Your task to perform on an android device: toggle javascript in the chrome app Image 0: 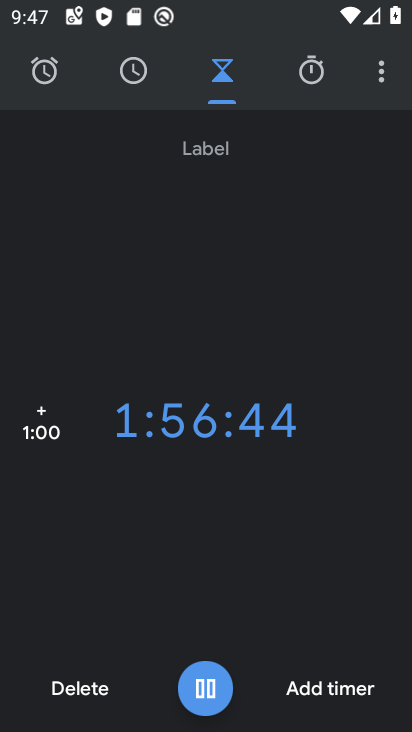
Step 0: press home button
Your task to perform on an android device: toggle javascript in the chrome app Image 1: 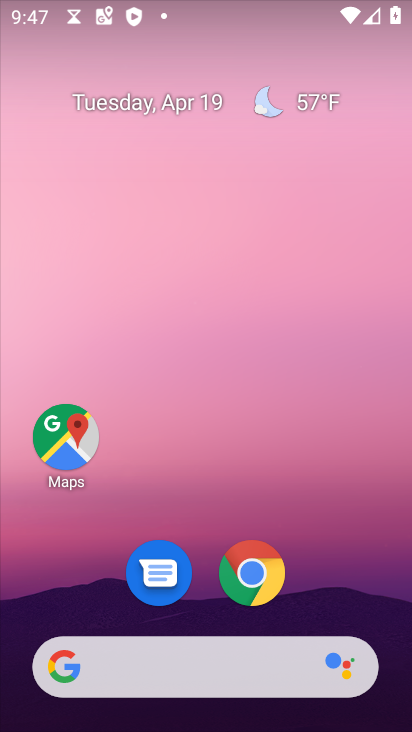
Step 1: click (263, 575)
Your task to perform on an android device: toggle javascript in the chrome app Image 2: 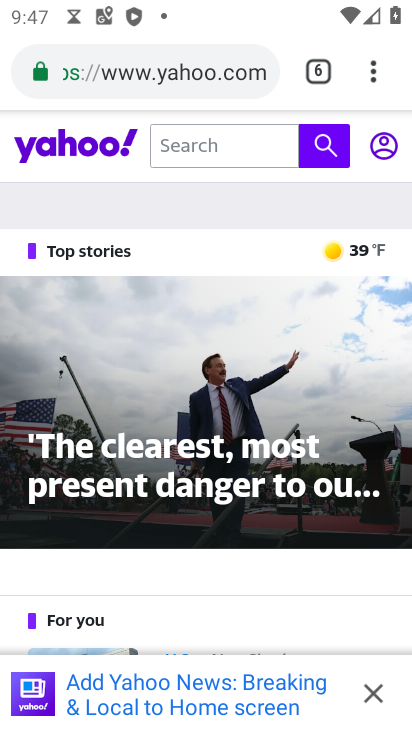
Step 2: click (370, 67)
Your task to perform on an android device: toggle javascript in the chrome app Image 3: 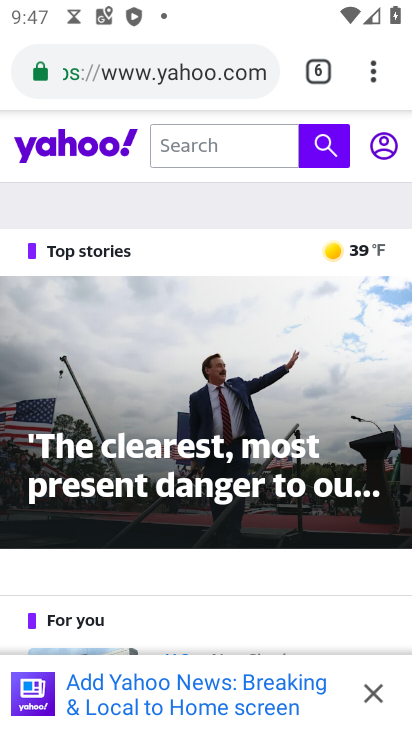
Step 3: click (384, 67)
Your task to perform on an android device: toggle javascript in the chrome app Image 4: 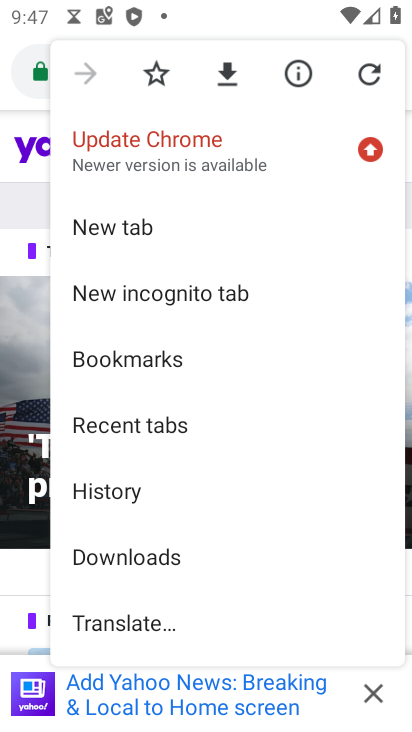
Step 4: drag from (228, 593) to (225, 213)
Your task to perform on an android device: toggle javascript in the chrome app Image 5: 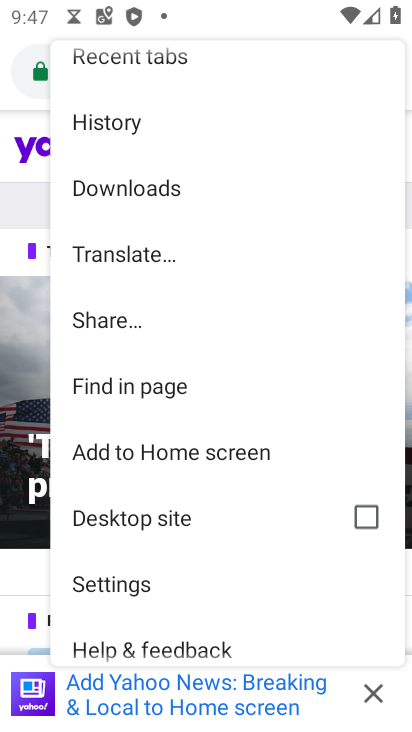
Step 5: click (138, 579)
Your task to perform on an android device: toggle javascript in the chrome app Image 6: 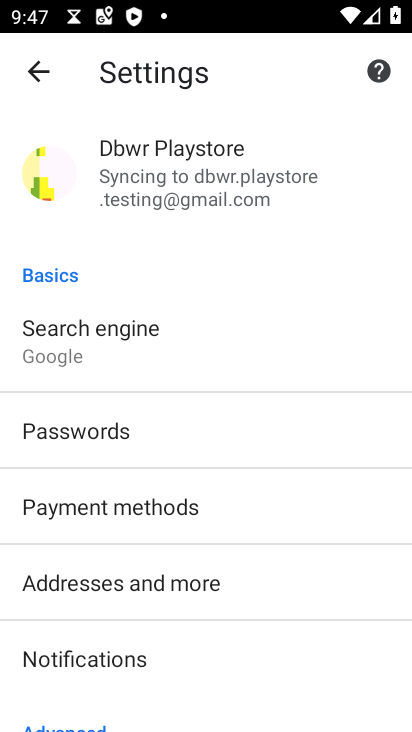
Step 6: drag from (297, 603) to (346, 198)
Your task to perform on an android device: toggle javascript in the chrome app Image 7: 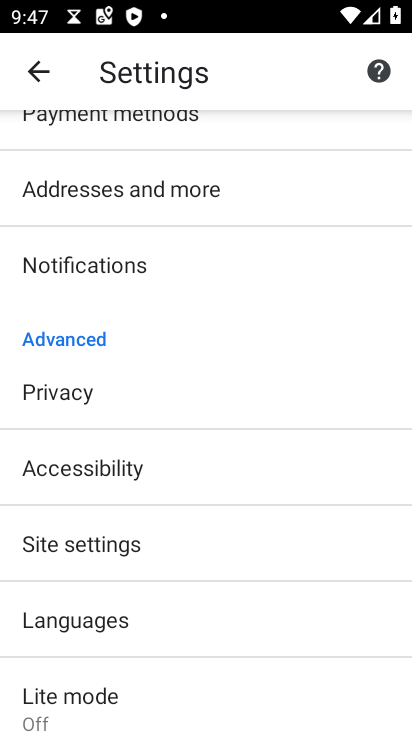
Step 7: click (111, 546)
Your task to perform on an android device: toggle javascript in the chrome app Image 8: 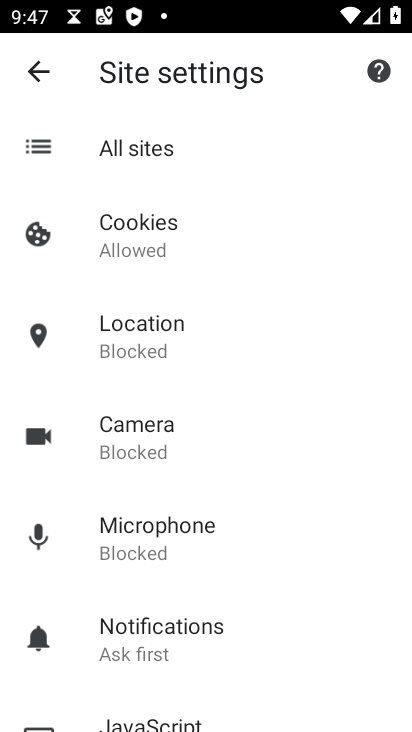
Step 8: click (199, 716)
Your task to perform on an android device: toggle javascript in the chrome app Image 9: 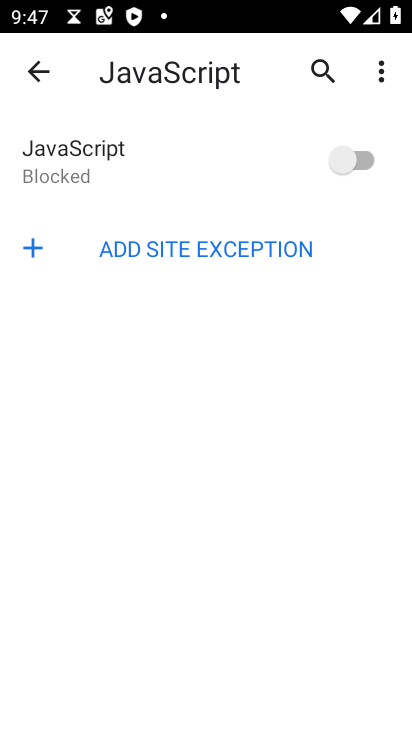
Step 9: click (366, 154)
Your task to perform on an android device: toggle javascript in the chrome app Image 10: 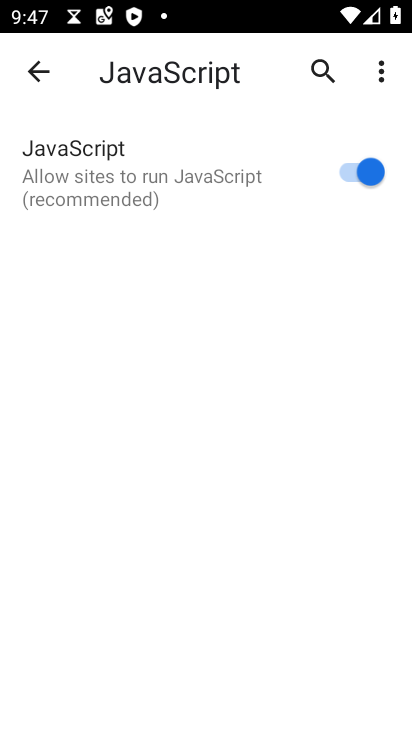
Step 10: task complete